Your task to perform on an android device: turn off notifications in google photos Image 0: 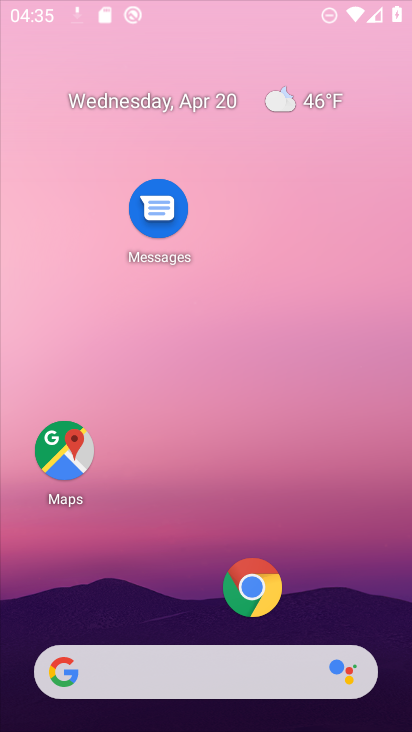
Step 0: click (245, 580)
Your task to perform on an android device: turn off notifications in google photos Image 1: 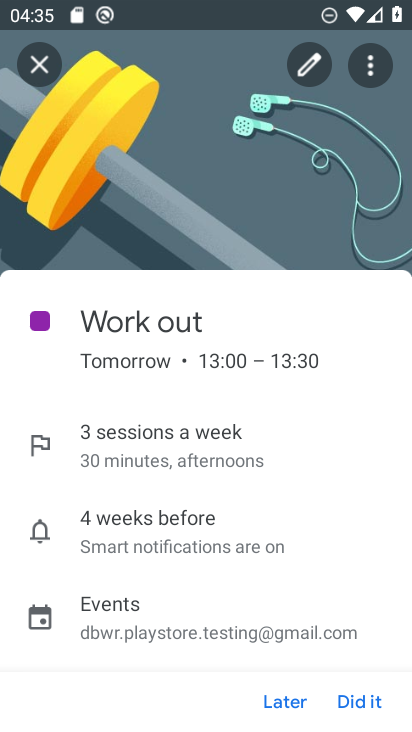
Step 1: press home button
Your task to perform on an android device: turn off notifications in google photos Image 2: 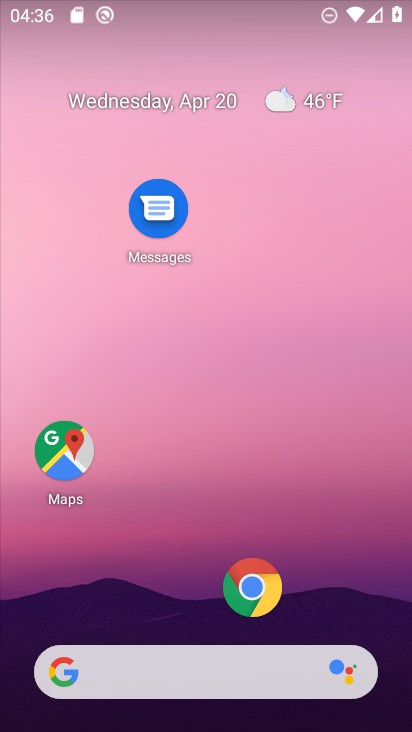
Step 2: drag from (160, 600) to (207, 144)
Your task to perform on an android device: turn off notifications in google photos Image 3: 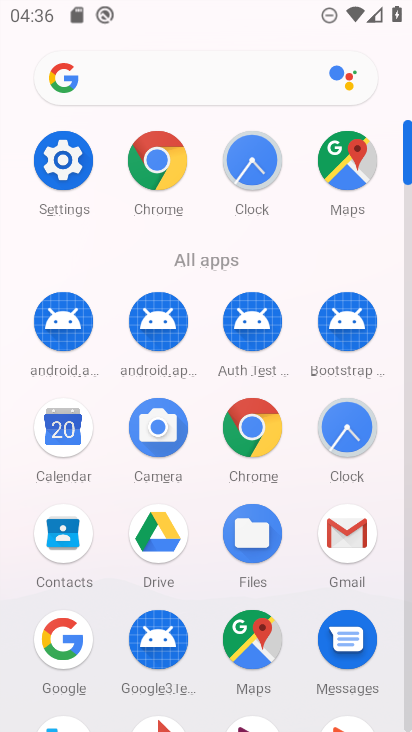
Step 3: drag from (201, 553) to (201, 240)
Your task to perform on an android device: turn off notifications in google photos Image 4: 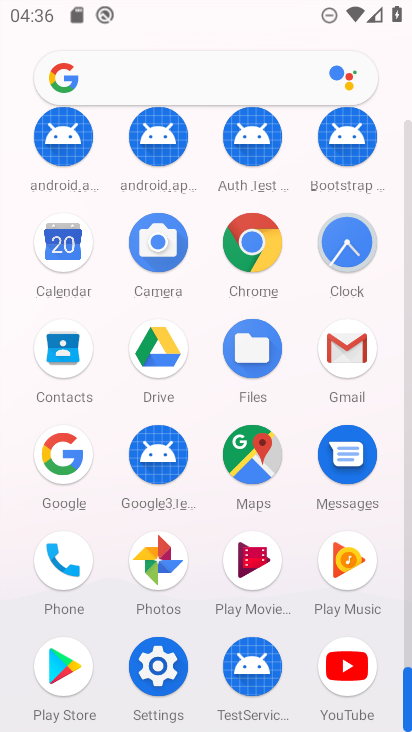
Step 4: click (153, 554)
Your task to perform on an android device: turn off notifications in google photos Image 5: 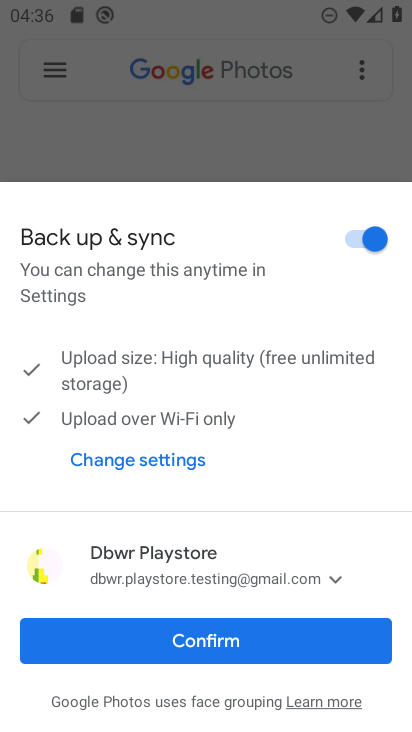
Step 5: click (196, 640)
Your task to perform on an android device: turn off notifications in google photos Image 6: 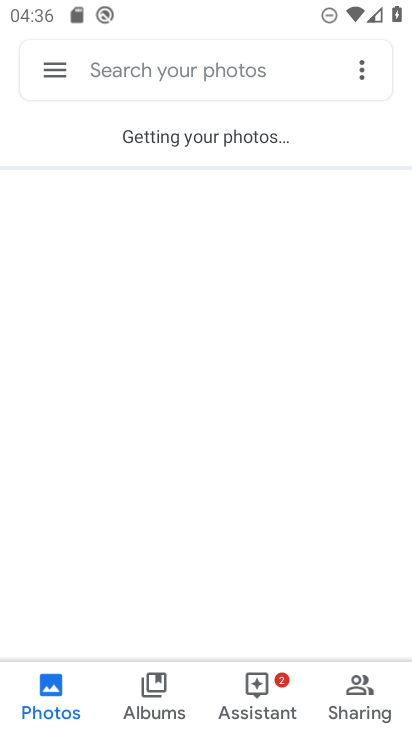
Step 6: click (47, 76)
Your task to perform on an android device: turn off notifications in google photos Image 7: 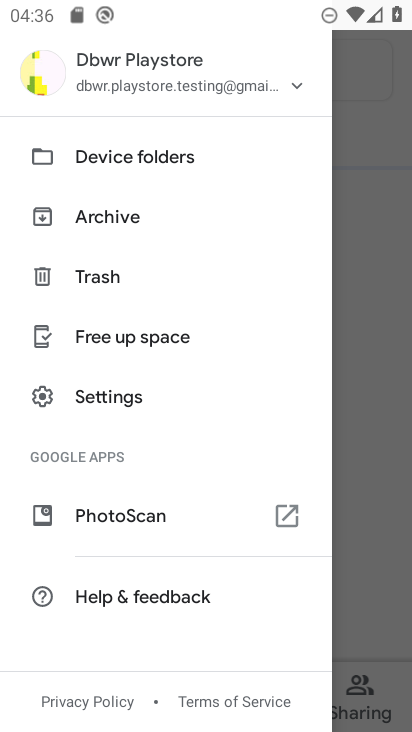
Step 7: click (119, 406)
Your task to perform on an android device: turn off notifications in google photos Image 8: 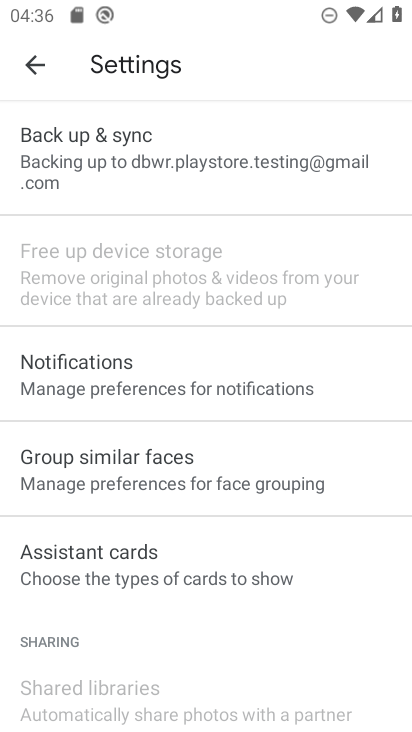
Step 8: click (161, 384)
Your task to perform on an android device: turn off notifications in google photos Image 9: 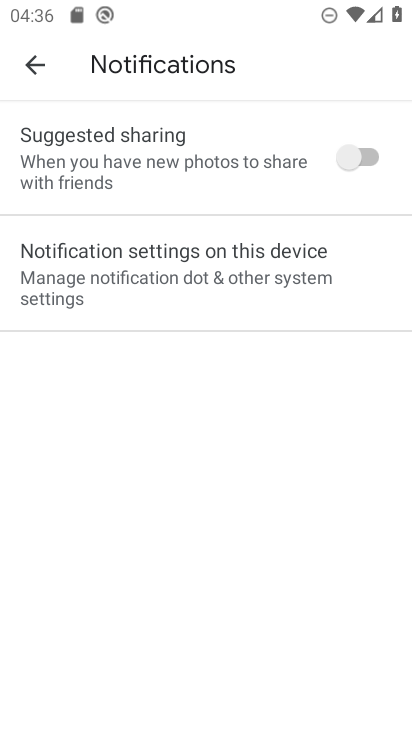
Step 9: click (159, 292)
Your task to perform on an android device: turn off notifications in google photos Image 10: 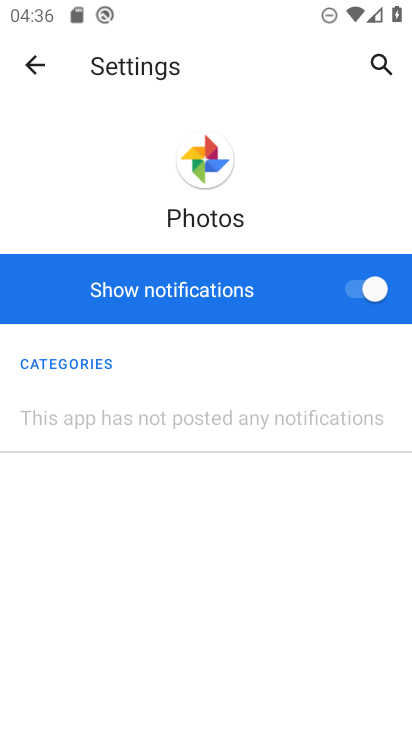
Step 10: drag from (207, 647) to (240, 265)
Your task to perform on an android device: turn off notifications in google photos Image 11: 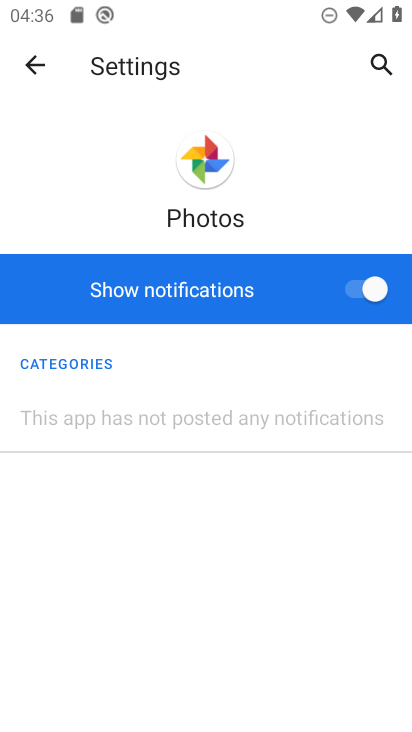
Step 11: click (351, 295)
Your task to perform on an android device: turn off notifications in google photos Image 12: 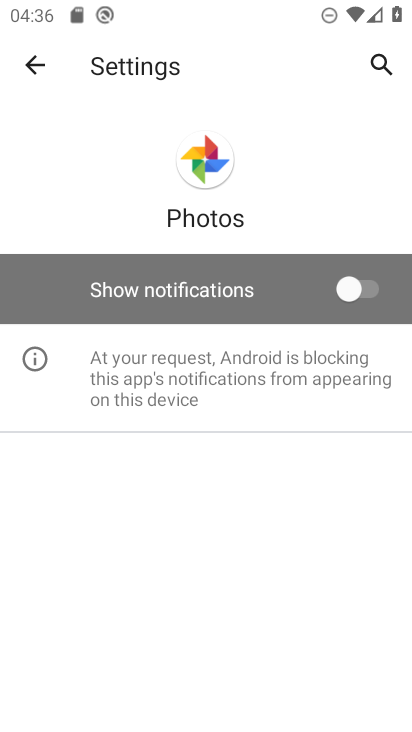
Step 12: task complete